Your task to perform on an android device: toggle translation in the chrome app Image 0: 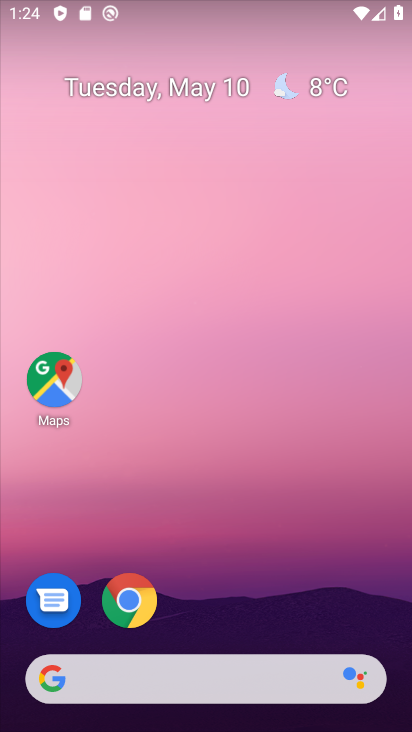
Step 0: click (131, 598)
Your task to perform on an android device: toggle translation in the chrome app Image 1: 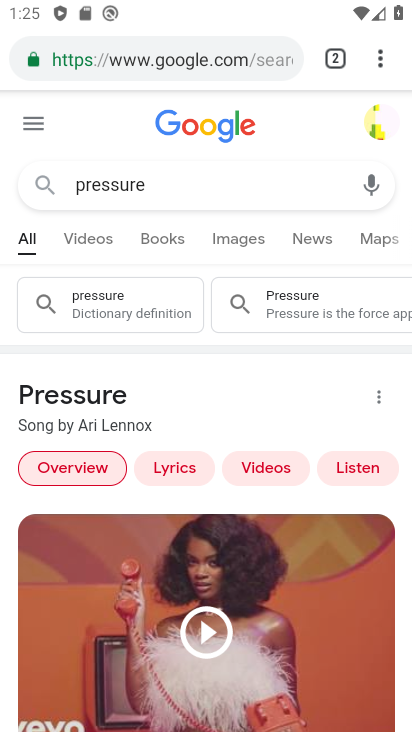
Step 1: click (380, 55)
Your task to perform on an android device: toggle translation in the chrome app Image 2: 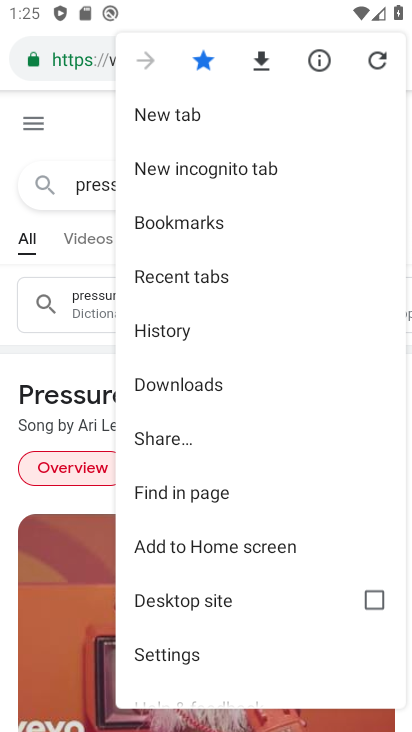
Step 2: click (209, 651)
Your task to perform on an android device: toggle translation in the chrome app Image 3: 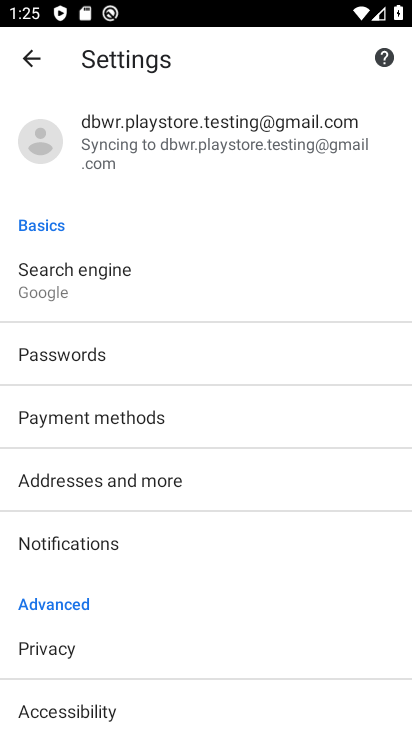
Step 3: drag from (190, 638) to (260, 134)
Your task to perform on an android device: toggle translation in the chrome app Image 4: 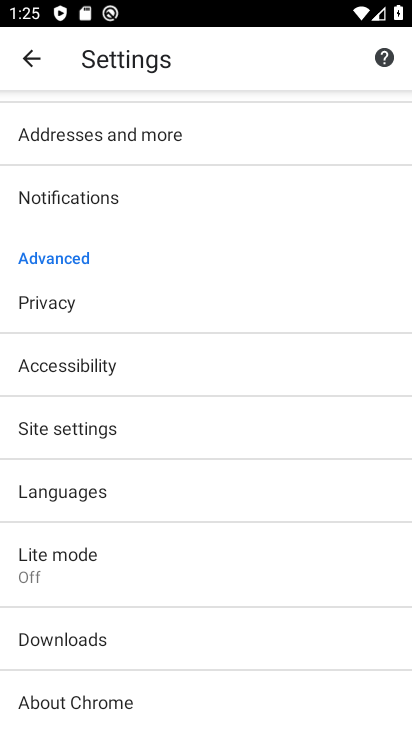
Step 4: click (133, 487)
Your task to perform on an android device: toggle translation in the chrome app Image 5: 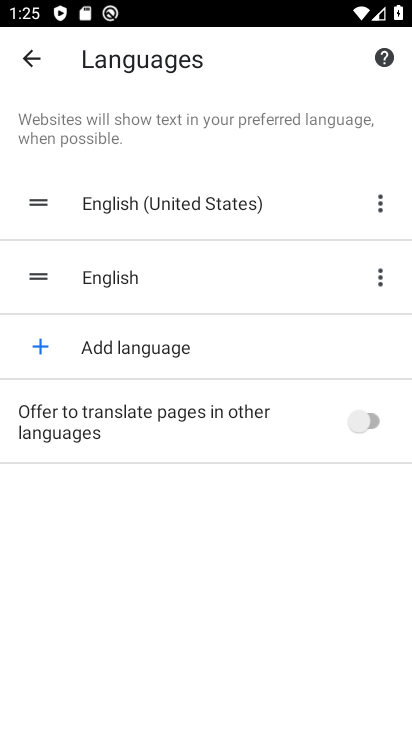
Step 5: click (372, 412)
Your task to perform on an android device: toggle translation in the chrome app Image 6: 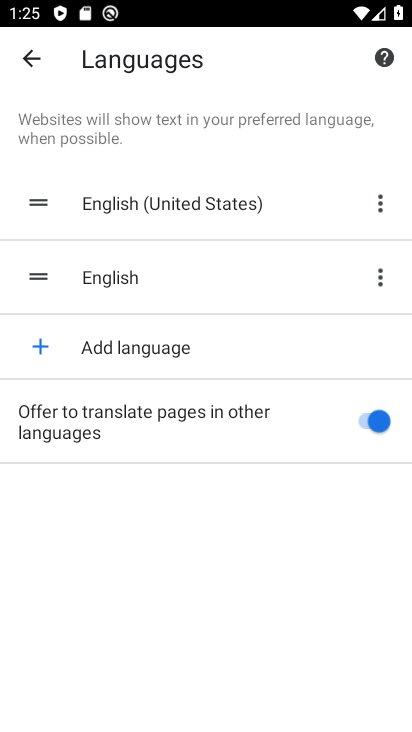
Step 6: task complete